Your task to perform on an android device: change the clock display to digital Image 0: 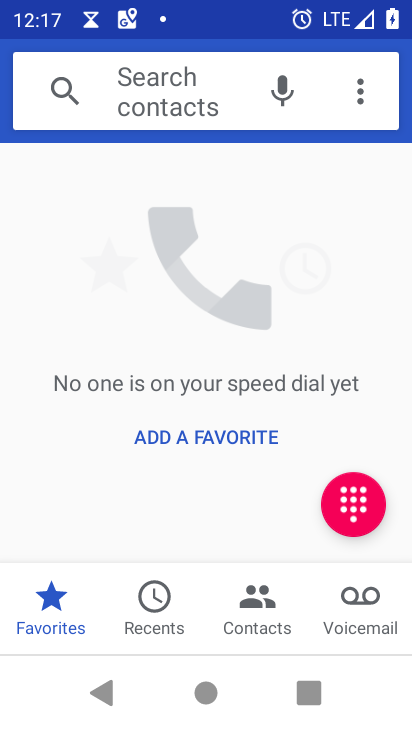
Step 0: press home button
Your task to perform on an android device: change the clock display to digital Image 1: 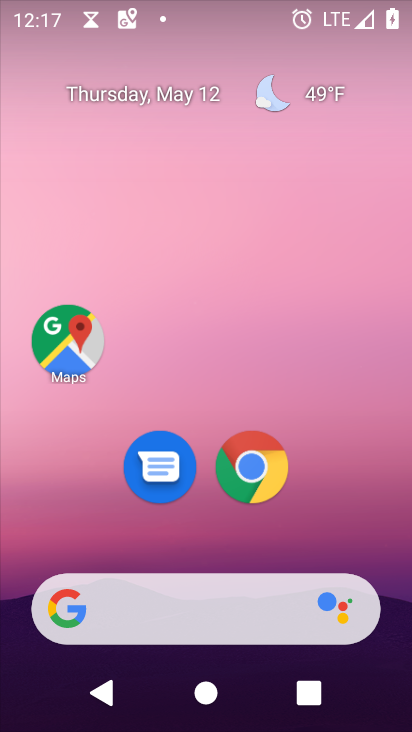
Step 1: drag from (255, 610) to (294, 190)
Your task to perform on an android device: change the clock display to digital Image 2: 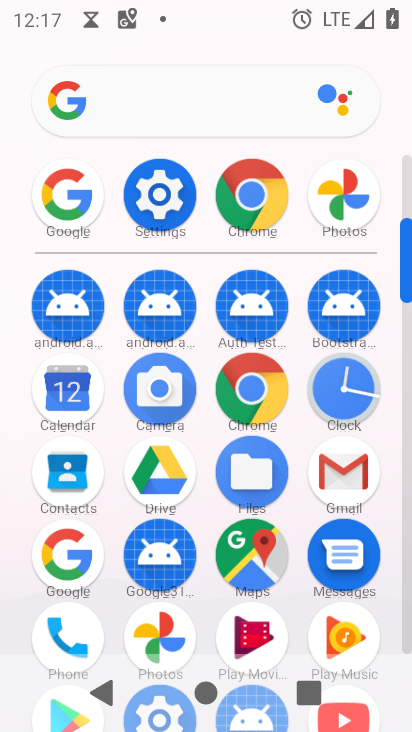
Step 2: click (346, 389)
Your task to perform on an android device: change the clock display to digital Image 3: 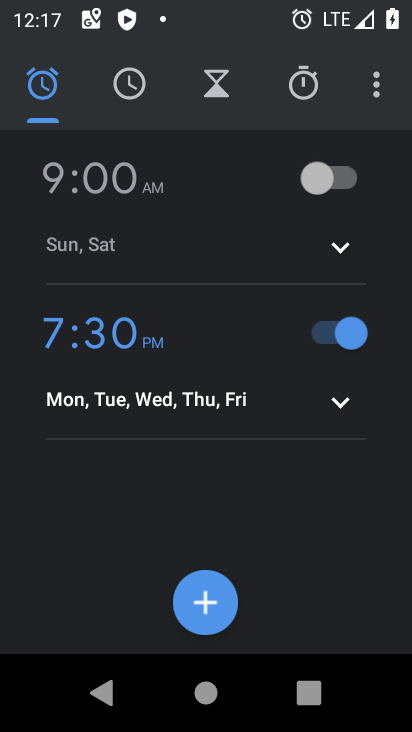
Step 3: click (378, 87)
Your task to perform on an android device: change the clock display to digital Image 4: 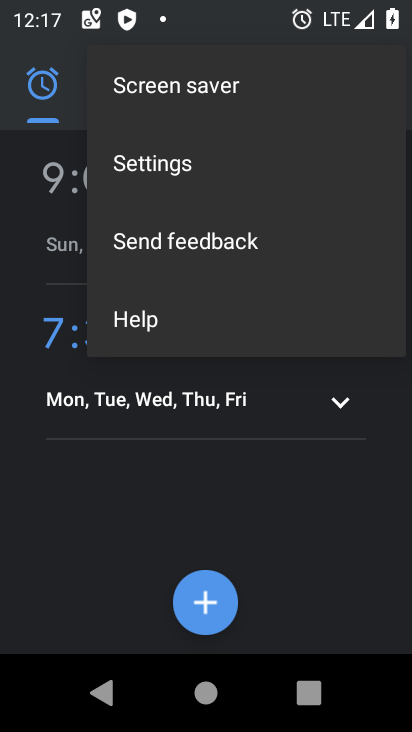
Step 4: click (204, 156)
Your task to perform on an android device: change the clock display to digital Image 5: 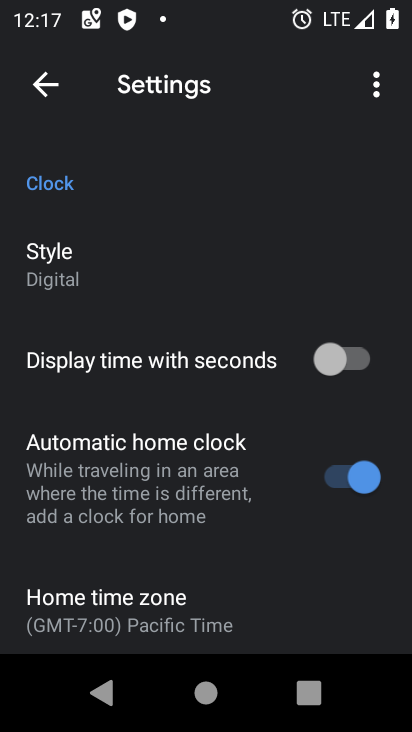
Step 5: task complete